Your task to perform on an android device: Open calendar and show me the second week of next month Image 0: 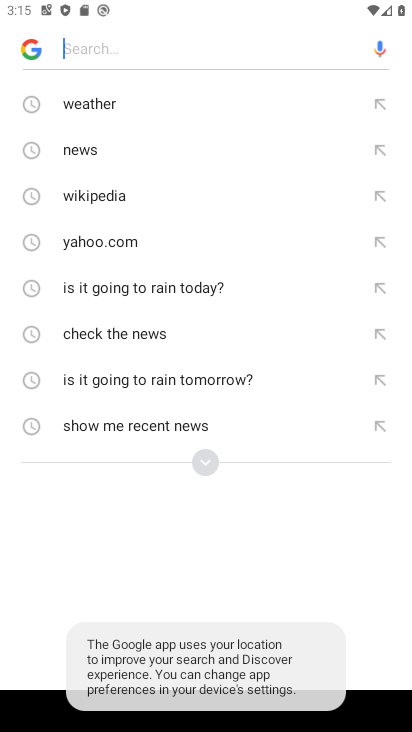
Step 0: press home button
Your task to perform on an android device: Open calendar and show me the second week of next month Image 1: 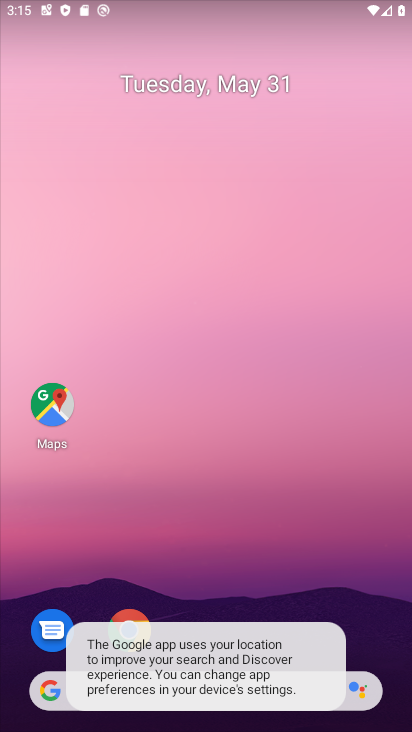
Step 1: drag from (257, 666) to (332, 162)
Your task to perform on an android device: Open calendar and show me the second week of next month Image 2: 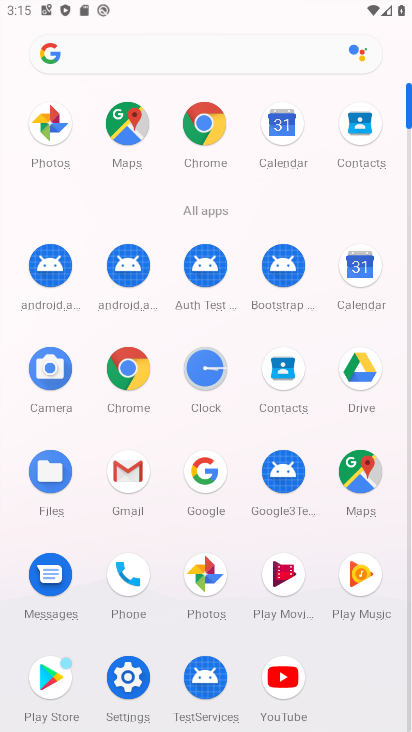
Step 2: click (355, 285)
Your task to perform on an android device: Open calendar and show me the second week of next month Image 3: 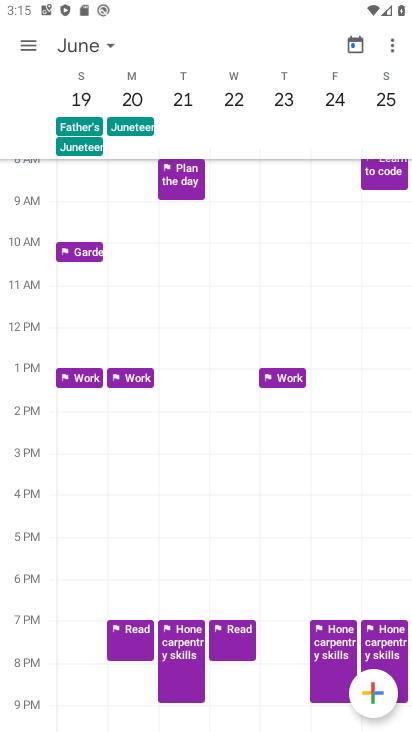
Step 3: click (78, 49)
Your task to perform on an android device: Open calendar and show me the second week of next month Image 4: 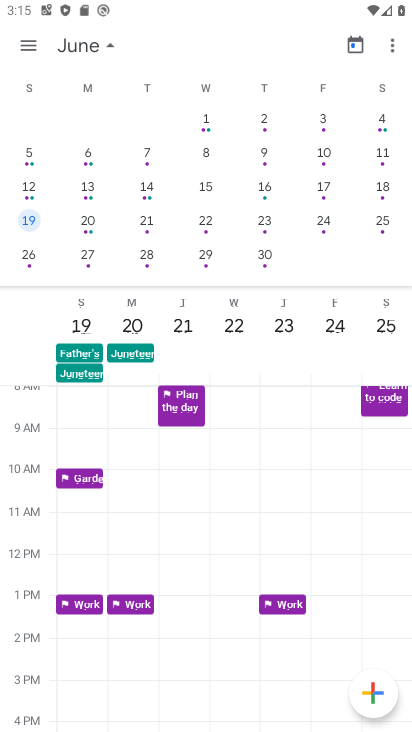
Step 4: click (28, 191)
Your task to perform on an android device: Open calendar and show me the second week of next month Image 5: 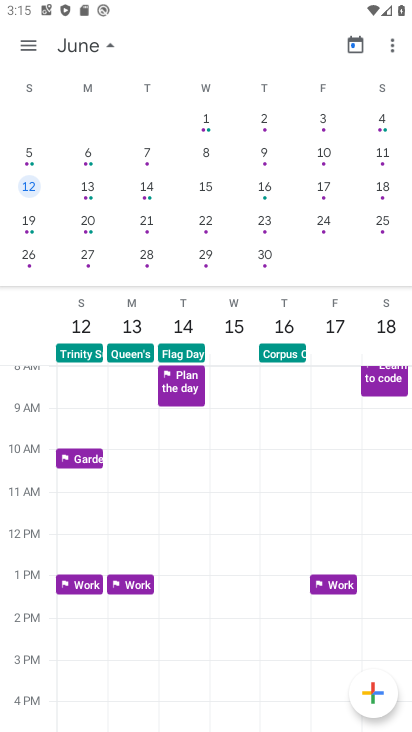
Step 5: click (101, 43)
Your task to perform on an android device: Open calendar and show me the second week of next month Image 6: 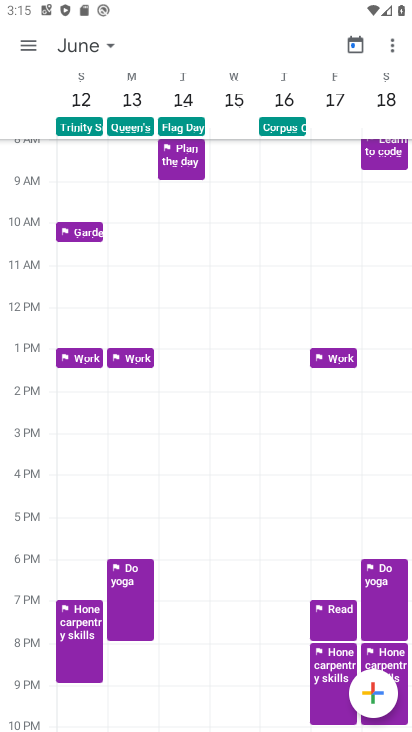
Step 6: task complete